Your task to perform on an android device: Go to eBay Image 0: 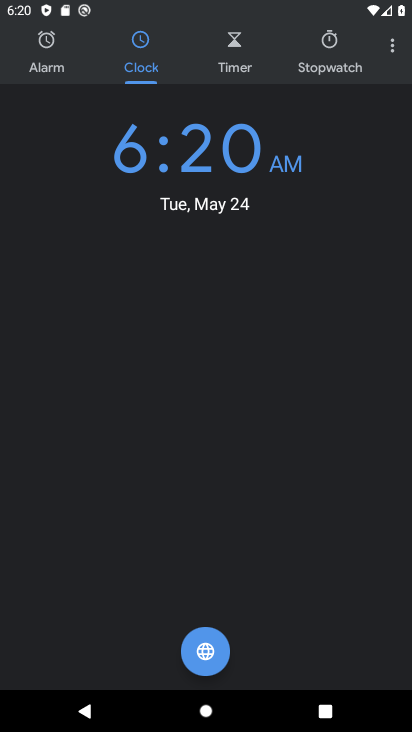
Step 0: press home button
Your task to perform on an android device: Go to eBay Image 1: 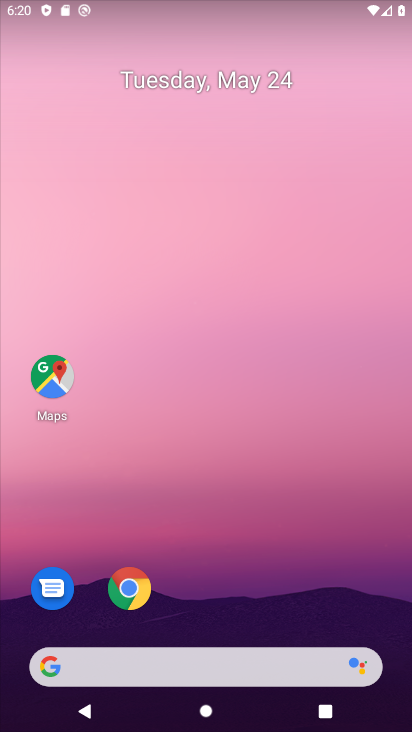
Step 1: drag from (298, 668) to (332, 30)
Your task to perform on an android device: Go to eBay Image 2: 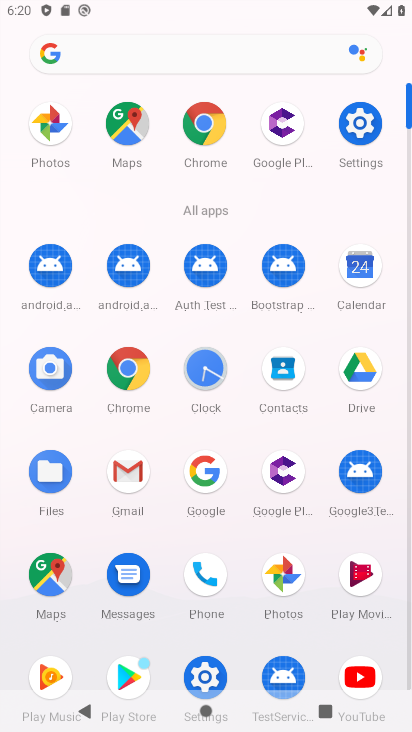
Step 2: click (135, 365)
Your task to perform on an android device: Go to eBay Image 3: 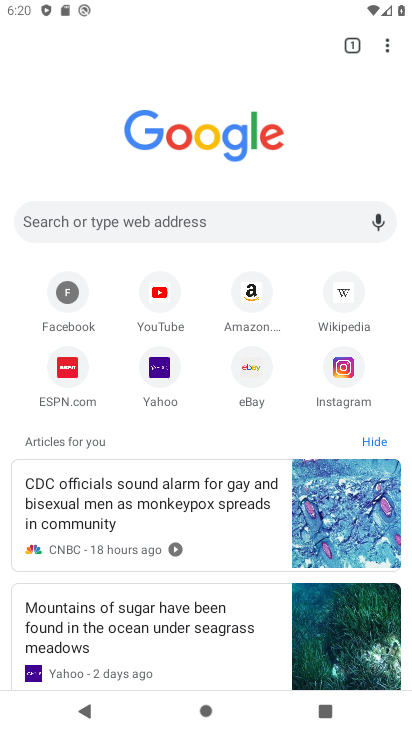
Step 3: click (239, 375)
Your task to perform on an android device: Go to eBay Image 4: 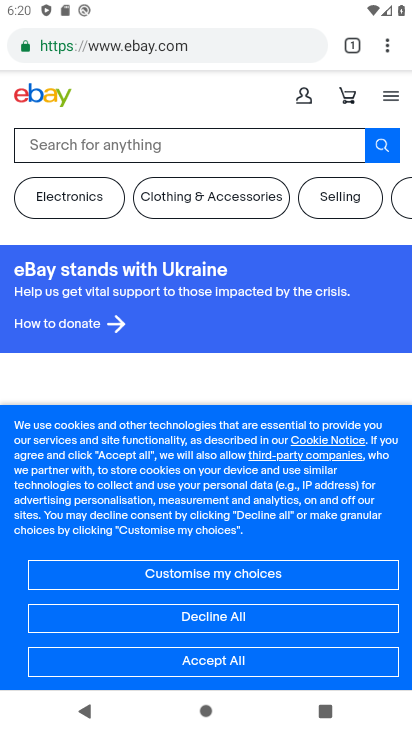
Step 4: task complete